Your task to perform on an android device: Go to battery settings Image 0: 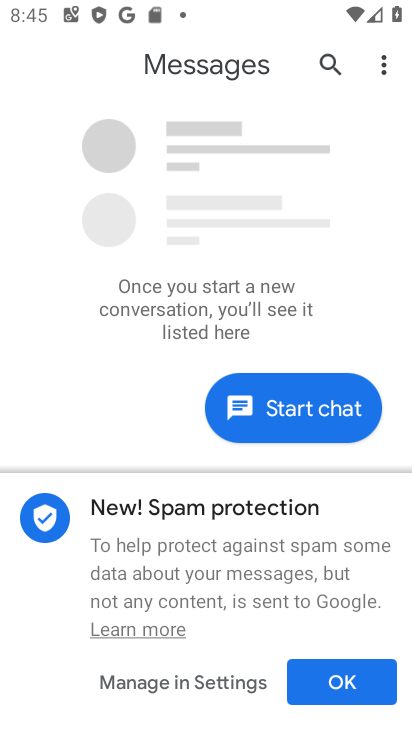
Step 0: press home button
Your task to perform on an android device: Go to battery settings Image 1: 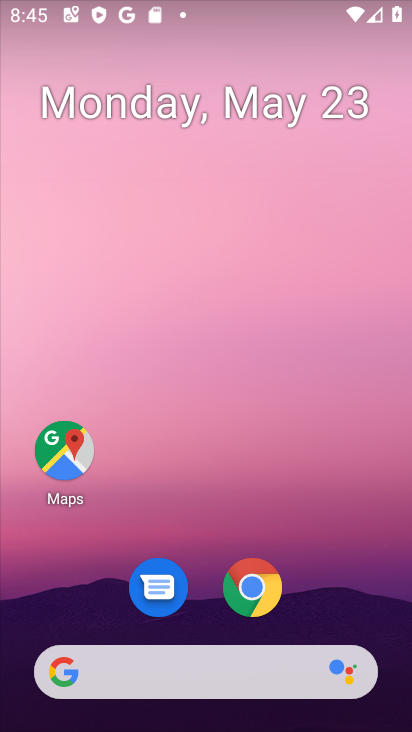
Step 1: drag from (287, 437) to (280, 54)
Your task to perform on an android device: Go to battery settings Image 2: 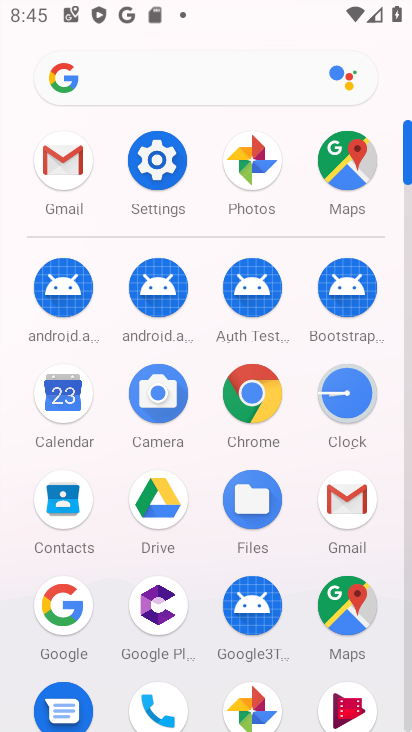
Step 2: click (149, 158)
Your task to perform on an android device: Go to battery settings Image 3: 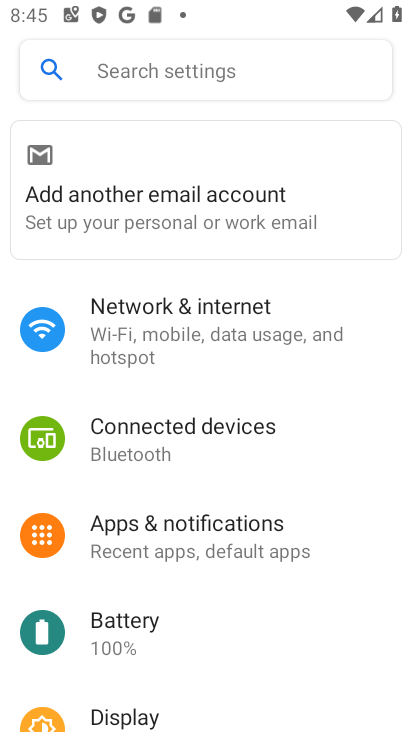
Step 3: click (158, 634)
Your task to perform on an android device: Go to battery settings Image 4: 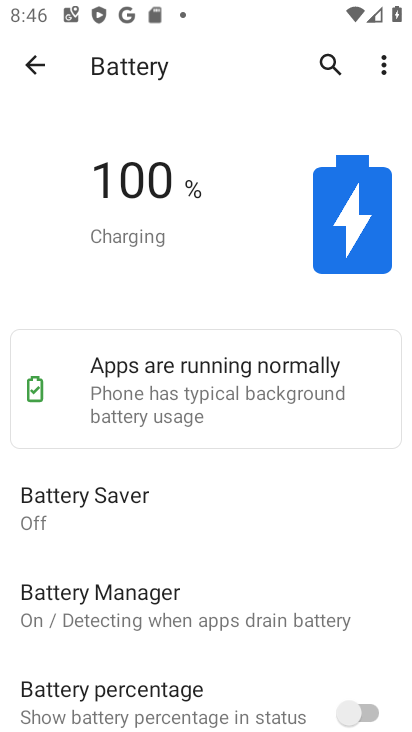
Step 4: task complete